Your task to perform on an android device: install app "Google Sheets" Image 0: 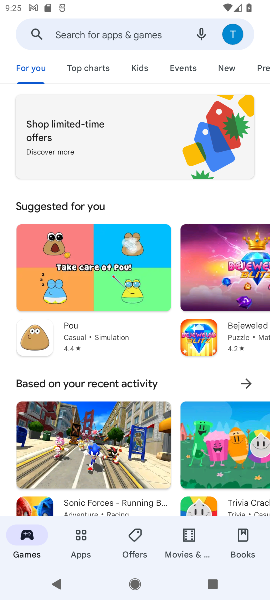
Step 0: click (80, 27)
Your task to perform on an android device: install app "Google Sheets" Image 1: 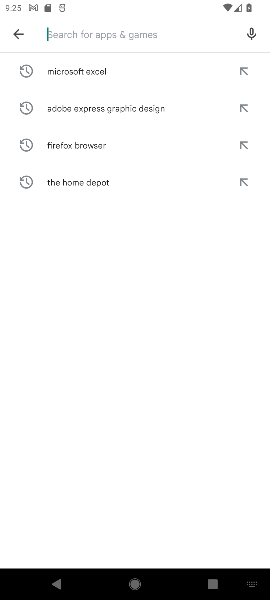
Step 1: click (79, 27)
Your task to perform on an android device: install app "Google Sheets" Image 2: 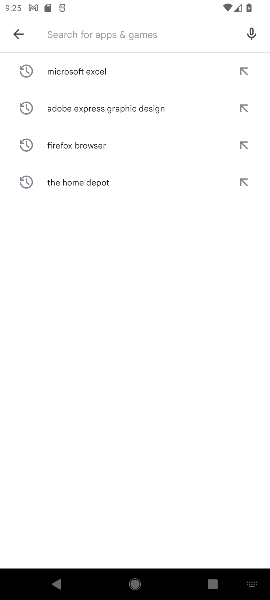
Step 2: type "google sheets"
Your task to perform on an android device: install app "Google Sheets" Image 3: 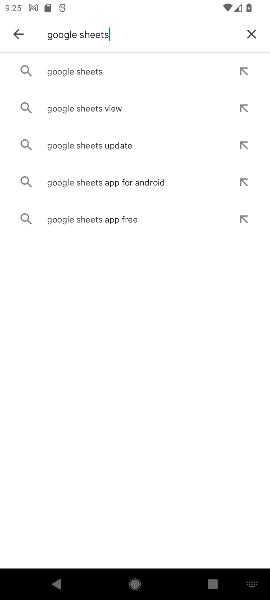
Step 3: click (93, 68)
Your task to perform on an android device: install app "Google Sheets" Image 4: 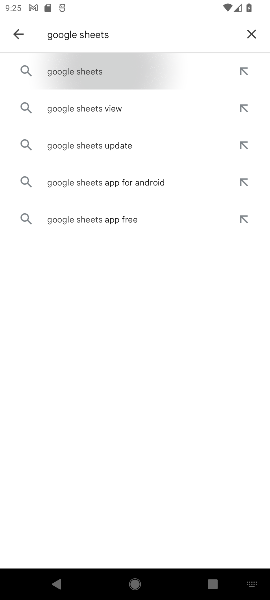
Step 4: click (91, 66)
Your task to perform on an android device: install app "Google Sheets" Image 5: 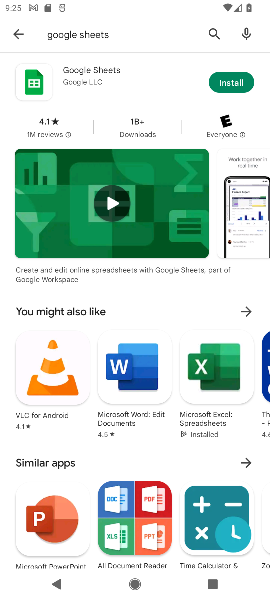
Step 5: click (222, 80)
Your task to perform on an android device: install app "Google Sheets" Image 6: 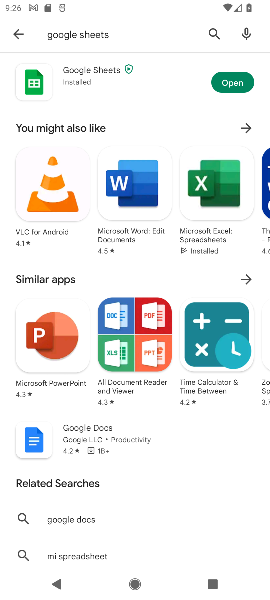
Step 6: click (226, 83)
Your task to perform on an android device: install app "Google Sheets" Image 7: 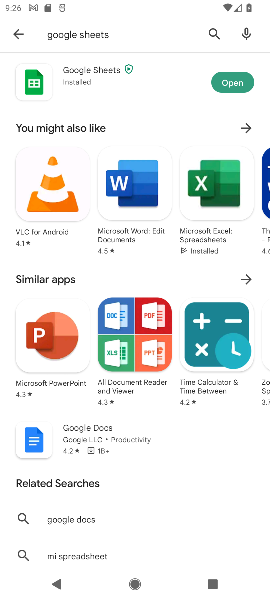
Step 7: click (226, 83)
Your task to perform on an android device: install app "Google Sheets" Image 8: 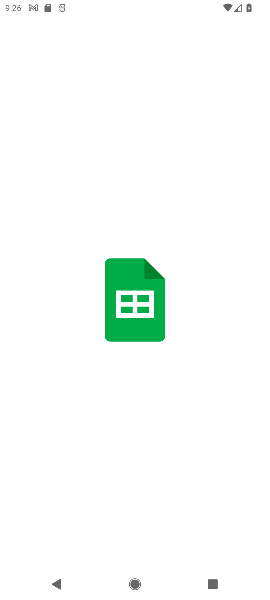
Step 8: click (226, 83)
Your task to perform on an android device: install app "Google Sheets" Image 9: 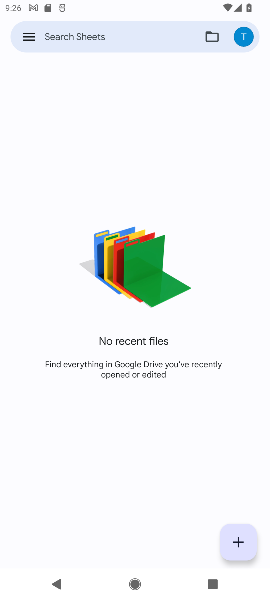
Step 9: click (84, 39)
Your task to perform on an android device: install app "Google Sheets" Image 10: 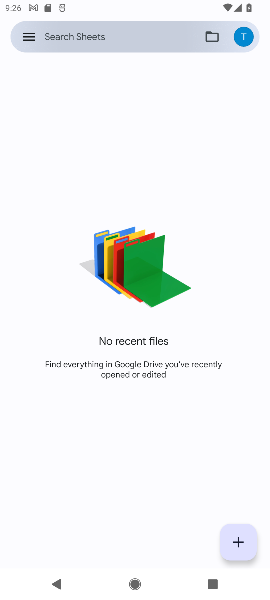
Step 10: click (82, 38)
Your task to perform on an android device: install app "Google Sheets" Image 11: 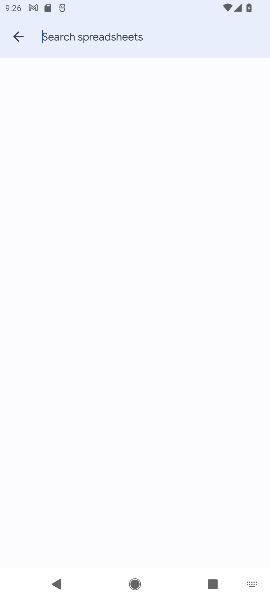
Step 11: task complete